Your task to perform on an android device: toggle airplane mode Image 0: 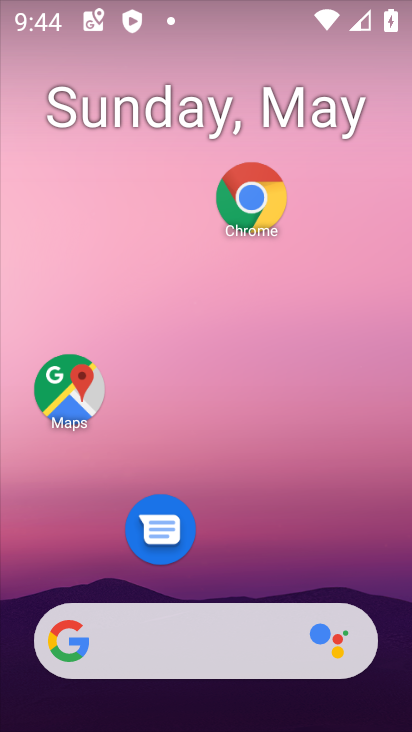
Step 0: drag from (235, 537) to (256, 56)
Your task to perform on an android device: toggle airplane mode Image 1: 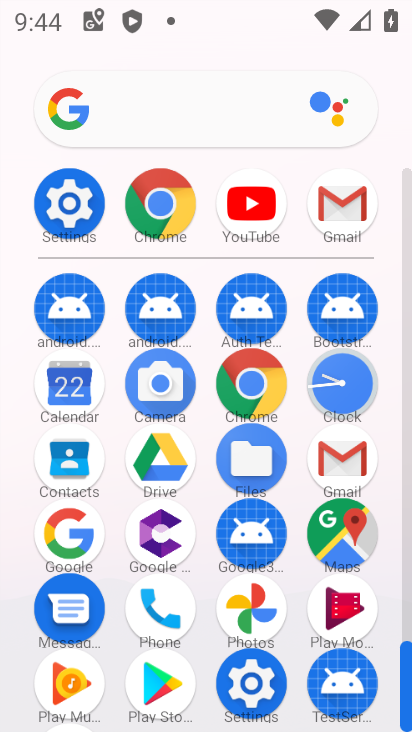
Step 1: click (63, 202)
Your task to perform on an android device: toggle airplane mode Image 2: 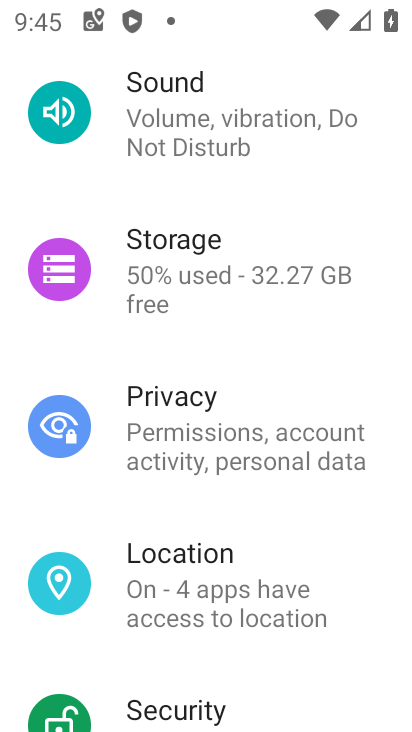
Step 2: drag from (263, 236) to (227, 608)
Your task to perform on an android device: toggle airplane mode Image 3: 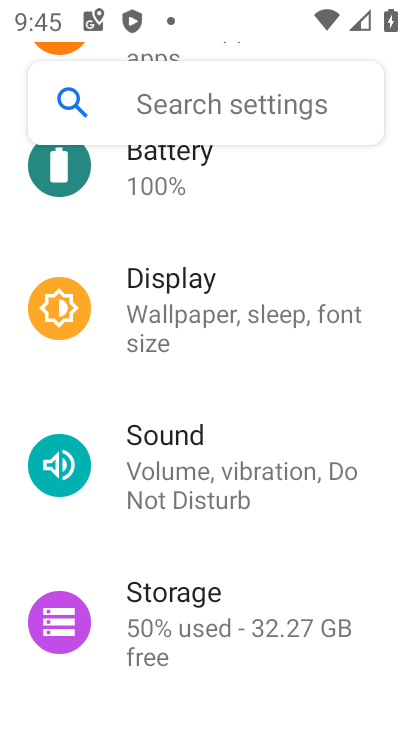
Step 3: drag from (217, 327) to (193, 589)
Your task to perform on an android device: toggle airplane mode Image 4: 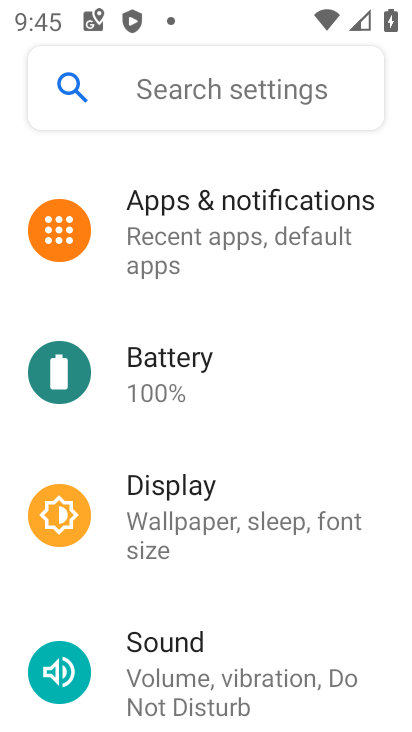
Step 4: drag from (167, 257) to (94, 597)
Your task to perform on an android device: toggle airplane mode Image 5: 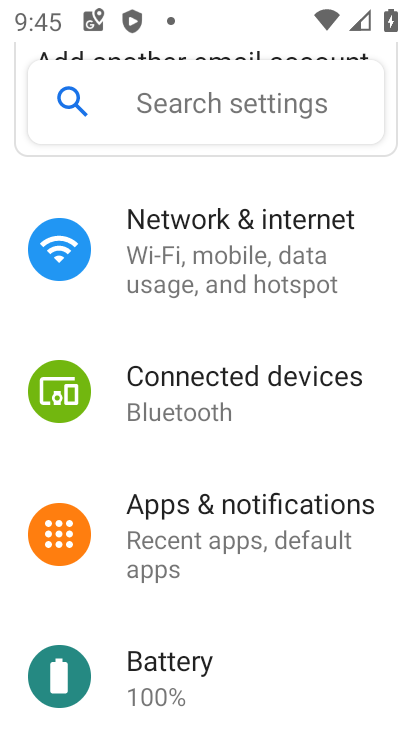
Step 5: click (135, 265)
Your task to perform on an android device: toggle airplane mode Image 6: 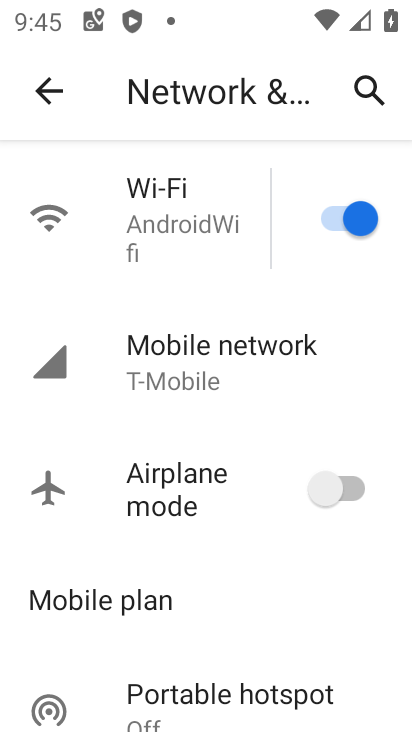
Step 6: click (345, 485)
Your task to perform on an android device: toggle airplane mode Image 7: 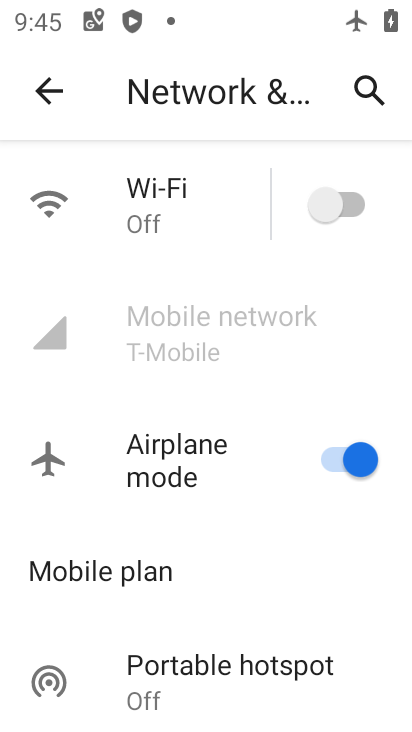
Step 7: task complete